Your task to perform on an android device: turn pop-ups on in chrome Image 0: 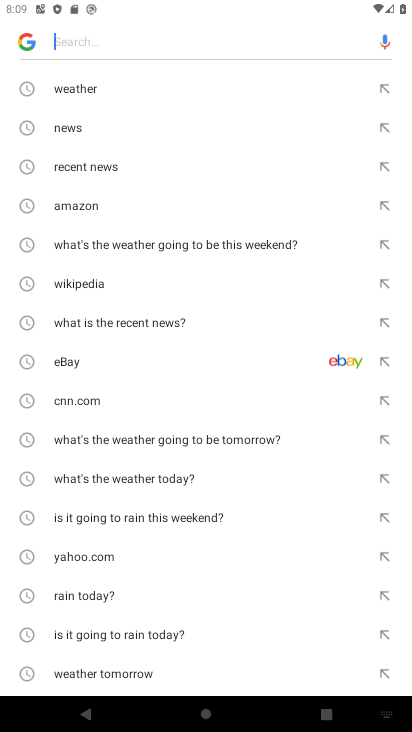
Step 0: press home button
Your task to perform on an android device: turn pop-ups on in chrome Image 1: 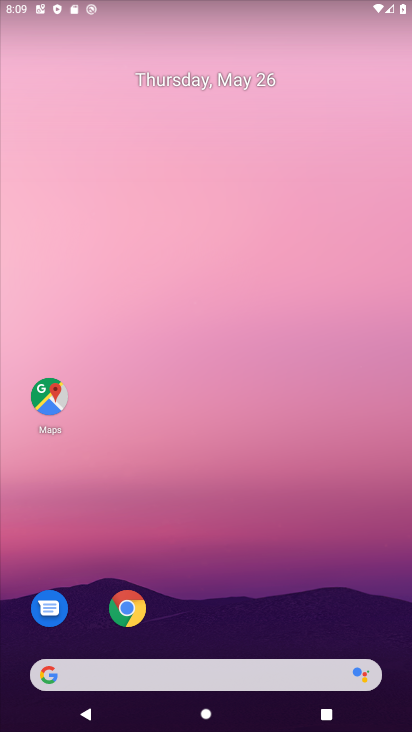
Step 1: click (126, 618)
Your task to perform on an android device: turn pop-ups on in chrome Image 2: 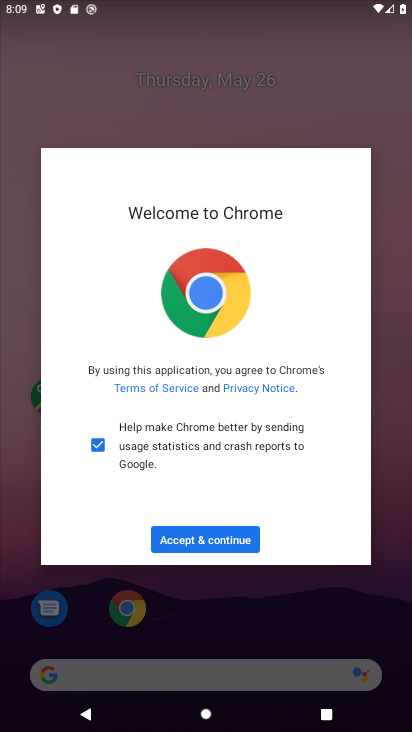
Step 2: click (242, 542)
Your task to perform on an android device: turn pop-ups on in chrome Image 3: 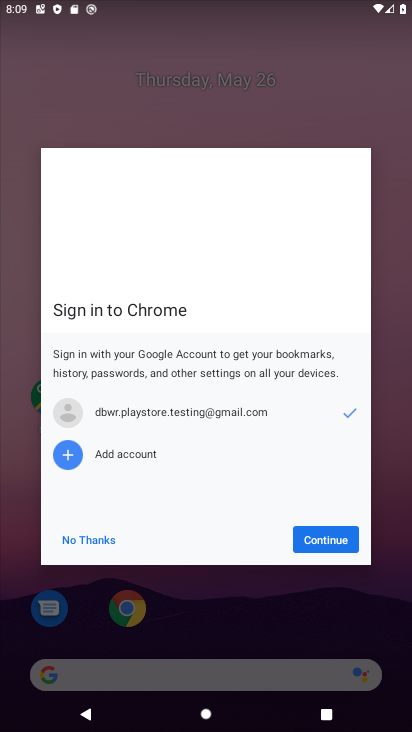
Step 3: click (319, 546)
Your task to perform on an android device: turn pop-ups on in chrome Image 4: 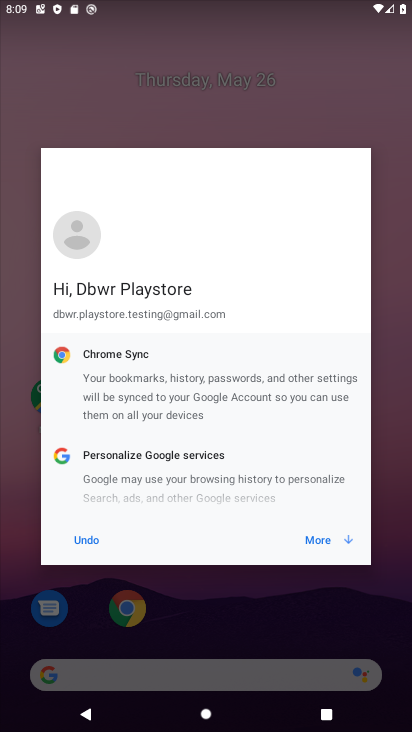
Step 4: click (323, 547)
Your task to perform on an android device: turn pop-ups on in chrome Image 5: 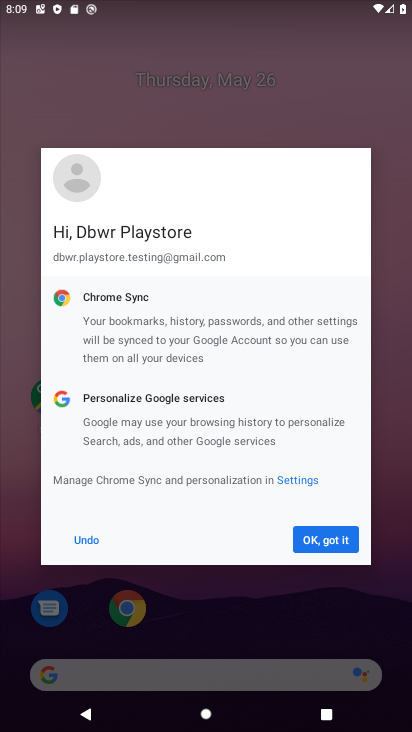
Step 5: click (324, 548)
Your task to perform on an android device: turn pop-ups on in chrome Image 6: 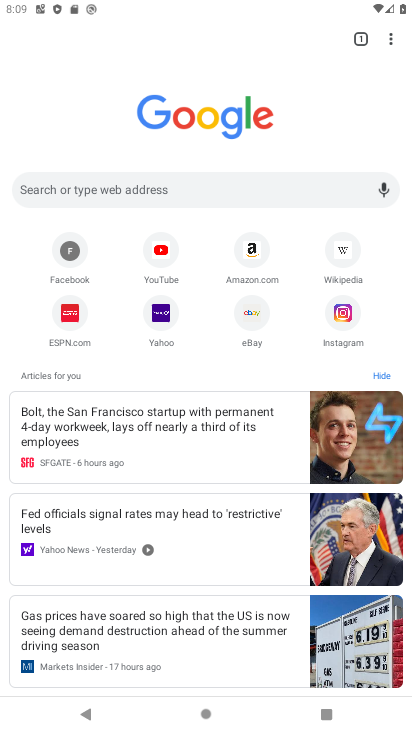
Step 6: click (392, 44)
Your task to perform on an android device: turn pop-ups on in chrome Image 7: 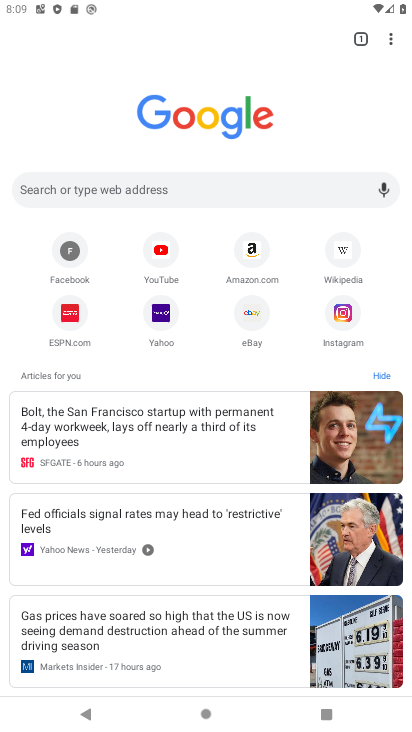
Step 7: click (392, 36)
Your task to perform on an android device: turn pop-ups on in chrome Image 8: 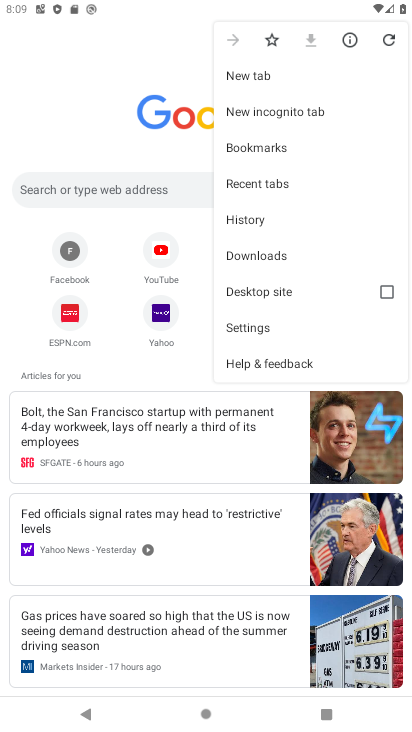
Step 8: click (253, 333)
Your task to perform on an android device: turn pop-ups on in chrome Image 9: 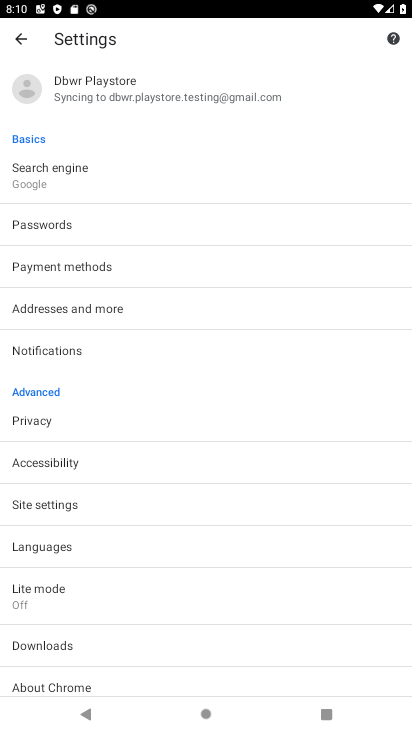
Step 9: click (52, 505)
Your task to perform on an android device: turn pop-ups on in chrome Image 10: 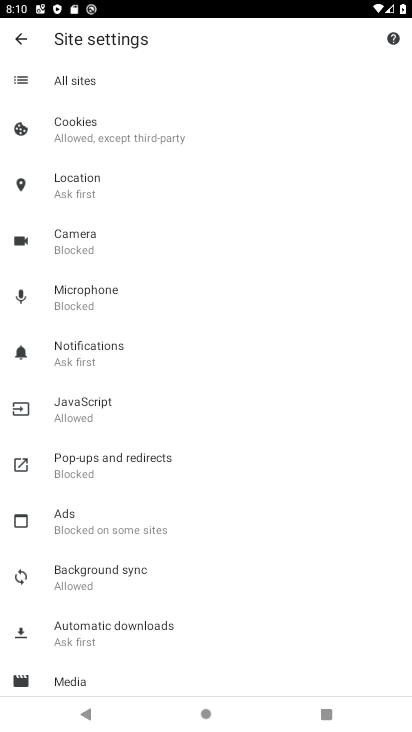
Step 10: click (132, 481)
Your task to perform on an android device: turn pop-ups on in chrome Image 11: 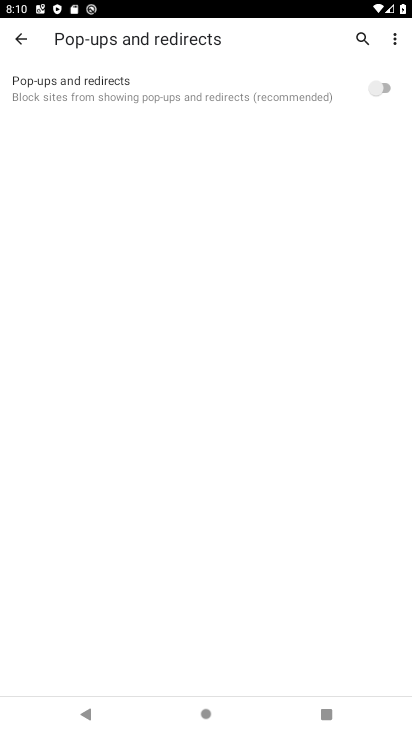
Step 11: click (377, 88)
Your task to perform on an android device: turn pop-ups on in chrome Image 12: 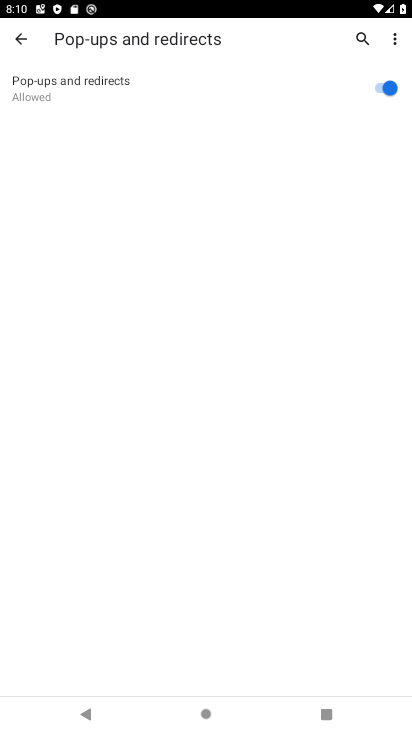
Step 12: task complete